Your task to perform on an android device: Go to Yahoo.com Image 0: 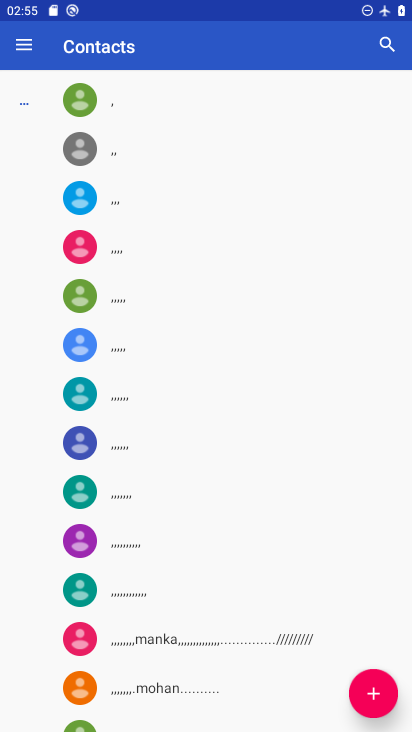
Step 0: press home button
Your task to perform on an android device: Go to Yahoo.com Image 1: 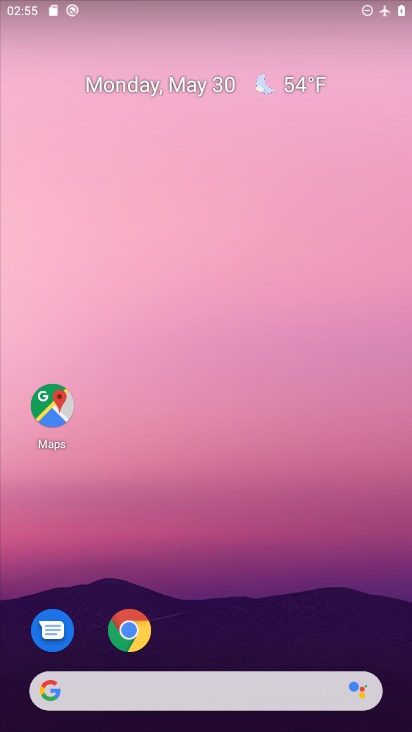
Step 1: click (130, 638)
Your task to perform on an android device: Go to Yahoo.com Image 2: 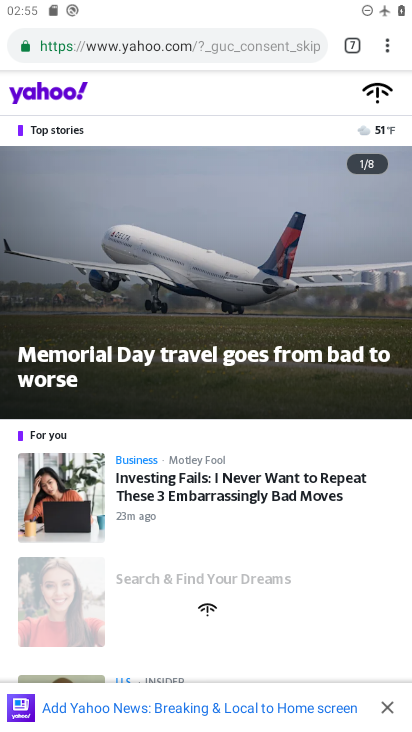
Step 2: task complete